Your task to perform on an android device: Open Youtube and go to the subscriptions tab Image 0: 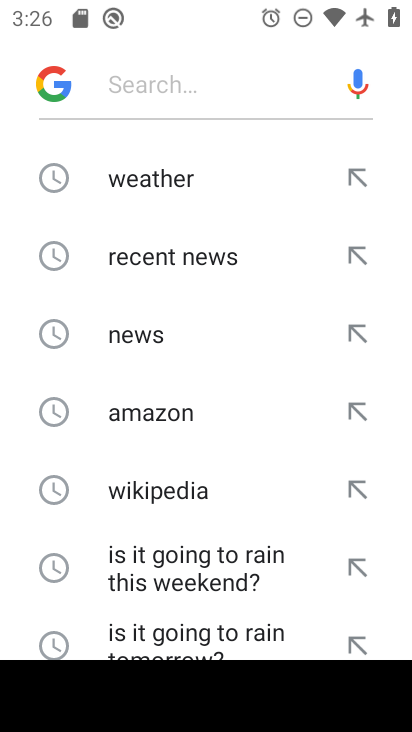
Step 0: press home button
Your task to perform on an android device: Open Youtube and go to the subscriptions tab Image 1: 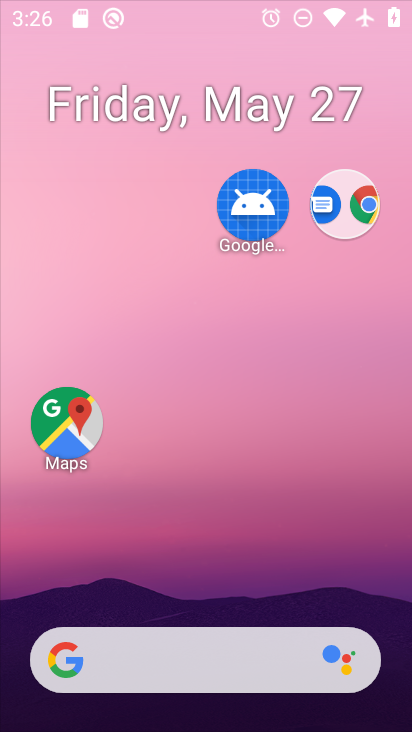
Step 1: drag from (179, 671) to (228, 254)
Your task to perform on an android device: Open Youtube and go to the subscriptions tab Image 2: 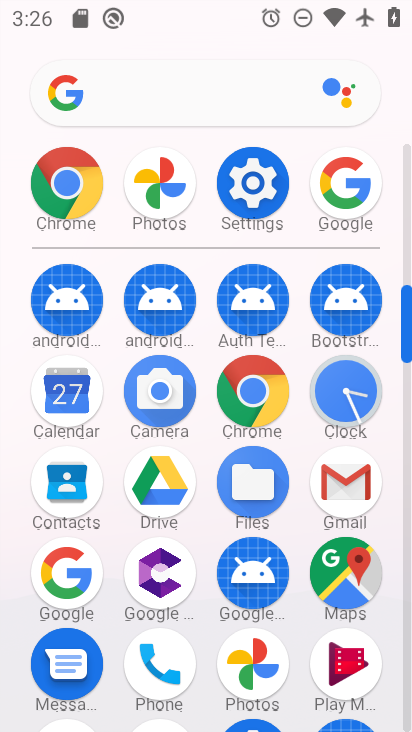
Step 2: drag from (288, 576) to (349, 312)
Your task to perform on an android device: Open Youtube and go to the subscriptions tab Image 3: 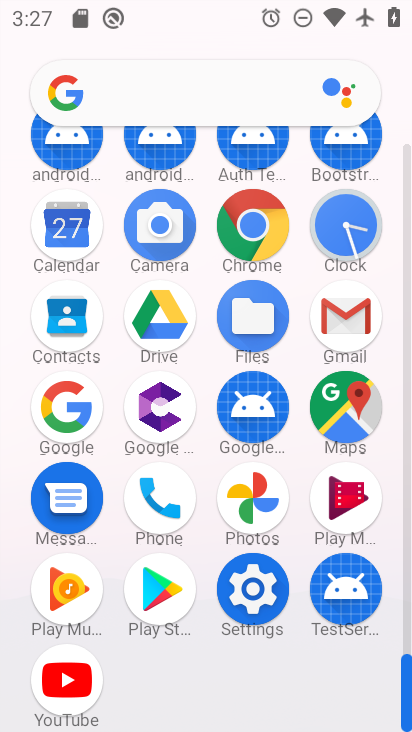
Step 3: click (81, 680)
Your task to perform on an android device: Open Youtube and go to the subscriptions tab Image 4: 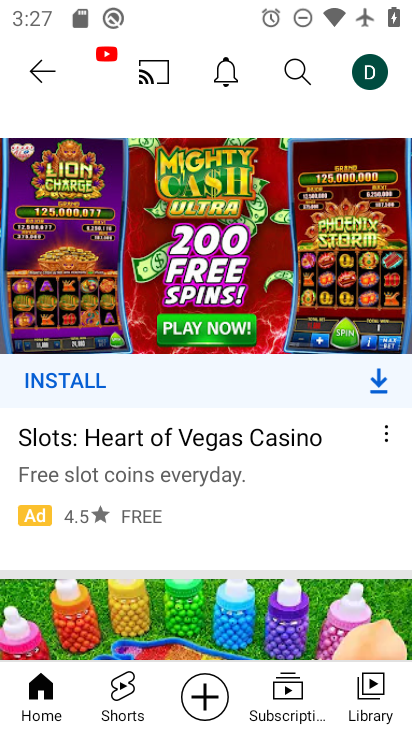
Step 4: click (287, 681)
Your task to perform on an android device: Open Youtube and go to the subscriptions tab Image 5: 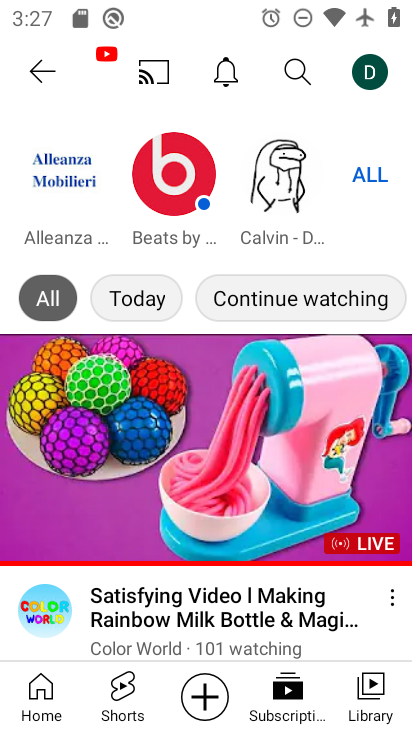
Step 5: task complete